Your task to perform on an android device: Search for Italian restaurants on Maps Image 0: 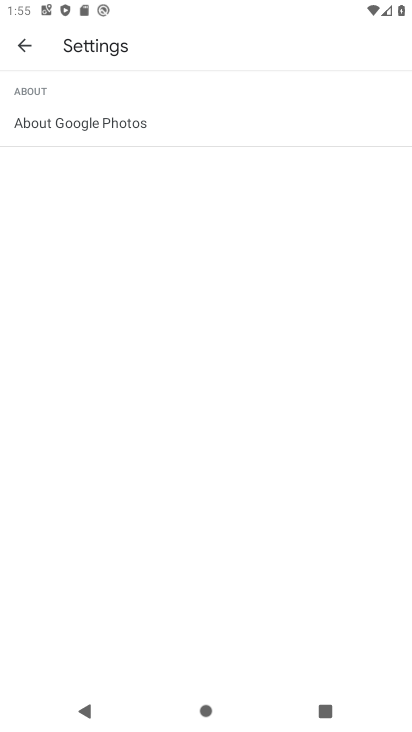
Step 0: click (24, 40)
Your task to perform on an android device: Search for Italian restaurants on Maps Image 1: 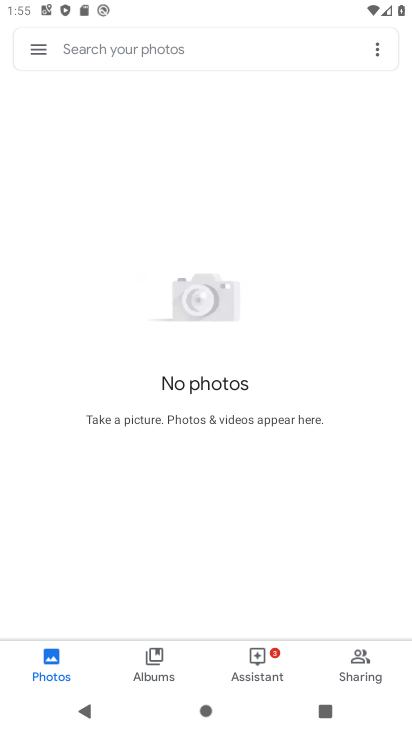
Step 1: press back button
Your task to perform on an android device: Search for Italian restaurants on Maps Image 2: 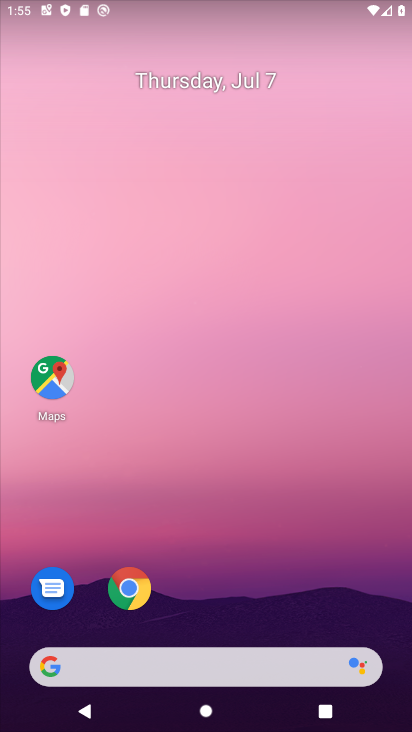
Step 2: click (54, 380)
Your task to perform on an android device: Search for Italian restaurants on Maps Image 3: 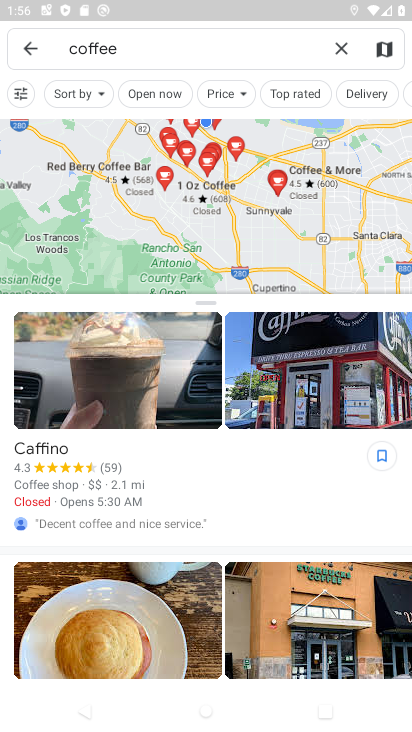
Step 3: click (334, 41)
Your task to perform on an android device: Search for Italian restaurants on Maps Image 4: 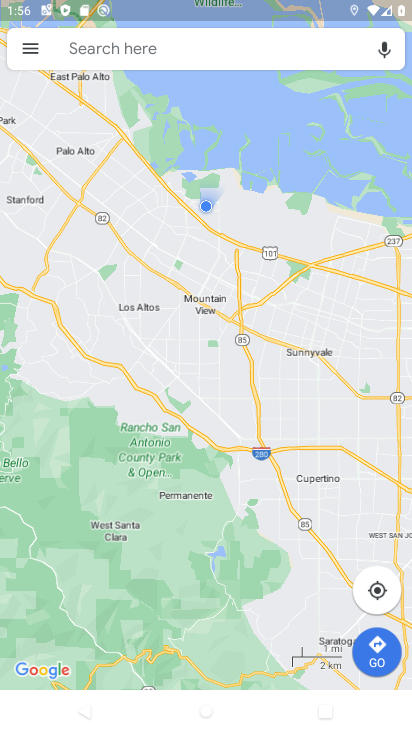
Step 4: click (112, 37)
Your task to perform on an android device: Search for Italian restaurants on Maps Image 5: 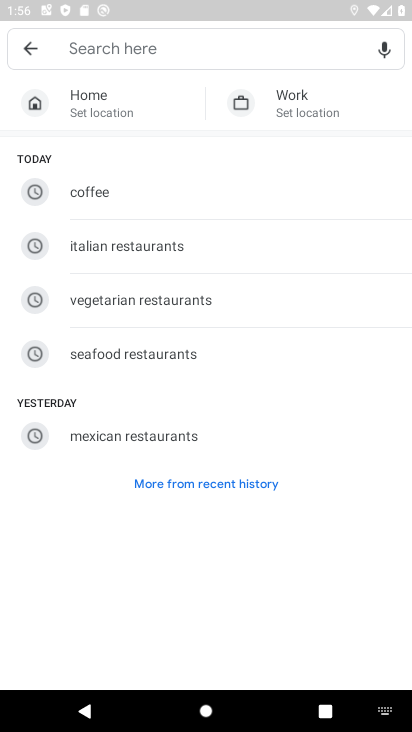
Step 5: type "italian restaurants"
Your task to perform on an android device: Search for Italian restaurants on Maps Image 6: 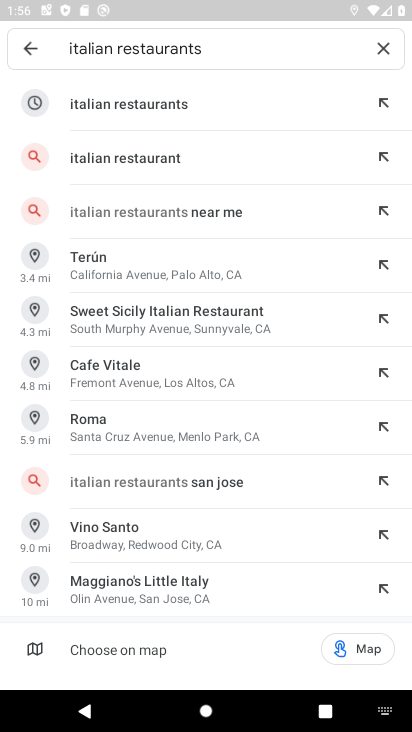
Step 6: click (95, 109)
Your task to perform on an android device: Search for Italian restaurants on Maps Image 7: 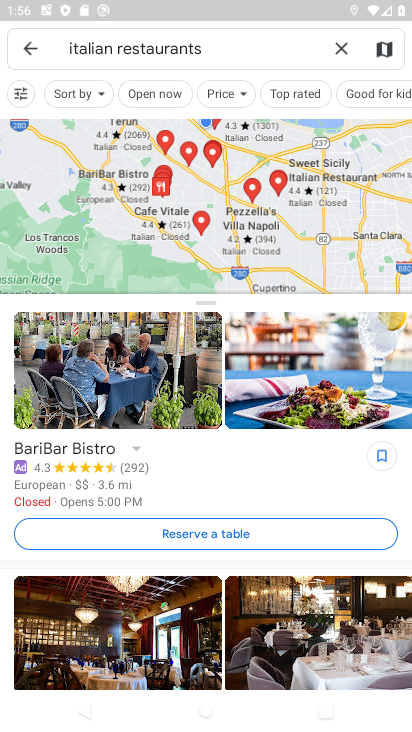
Step 7: task complete